Your task to perform on an android device: Open the map Image 0: 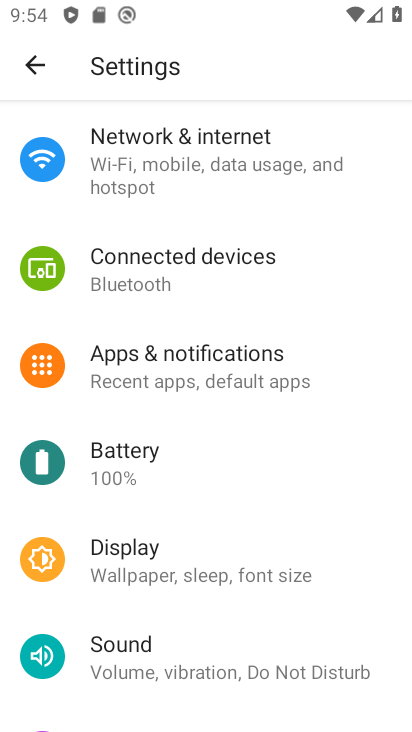
Step 0: press home button
Your task to perform on an android device: Open the map Image 1: 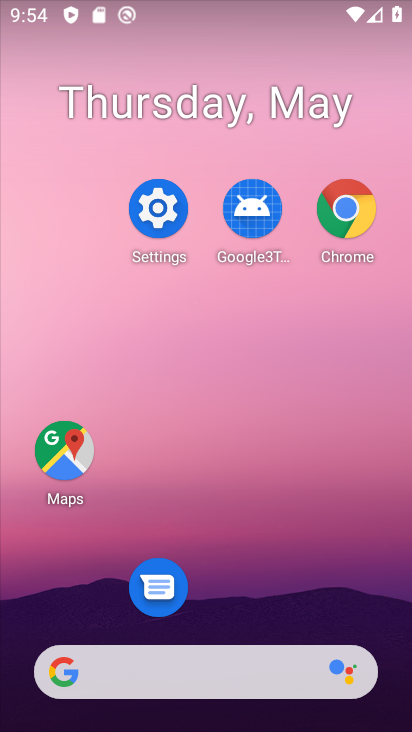
Step 1: click (65, 464)
Your task to perform on an android device: Open the map Image 2: 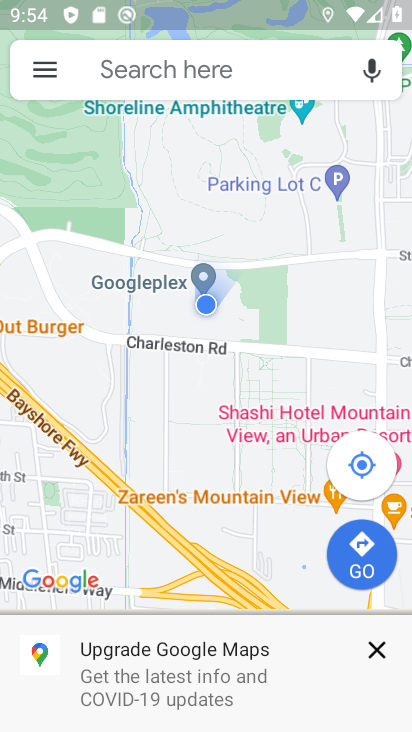
Step 2: task complete